Your task to perform on an android device: allow cookies in the chrome app Image 0: 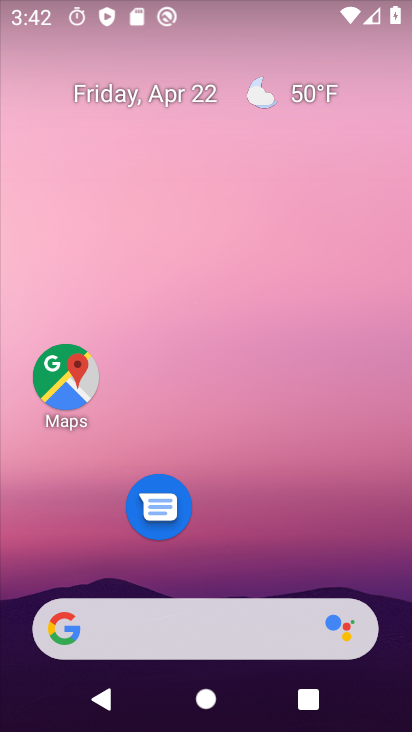
Step 0: drag from (272, 538) to (260, 127)
Your task to perform on an android device: allow cookies in the chrome app Image 1: 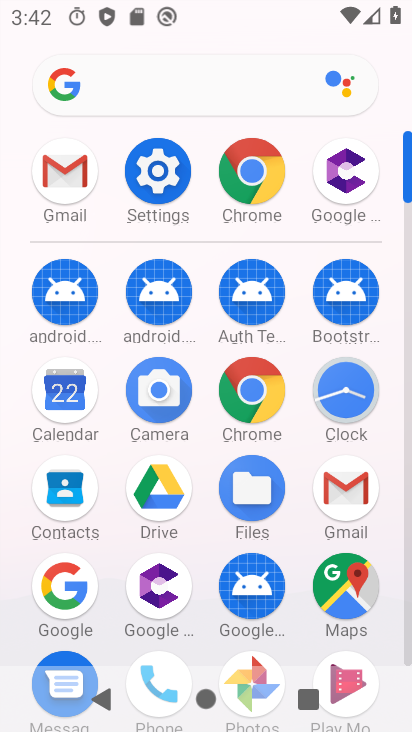
Step 1: click (252, 162)
Your task to perform on an android device: allow cookies in the chrome app Image 2: 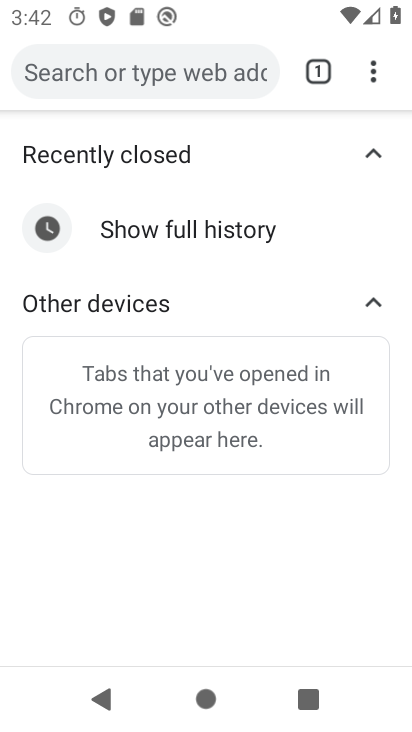
Step 2: drag from (380, 65) to (177, 398)
Your task to perform on an android device: allow cookies in the chrome app Image 3: 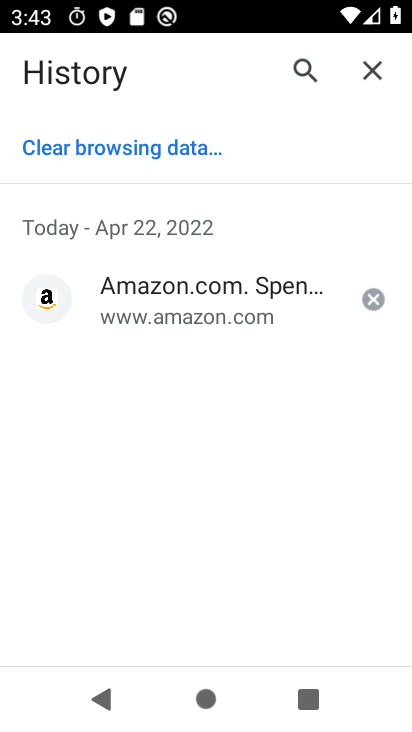
Step 3: click (367, 66)
Your task to perform on an android device: allow cookies in the chrome app Image 4: 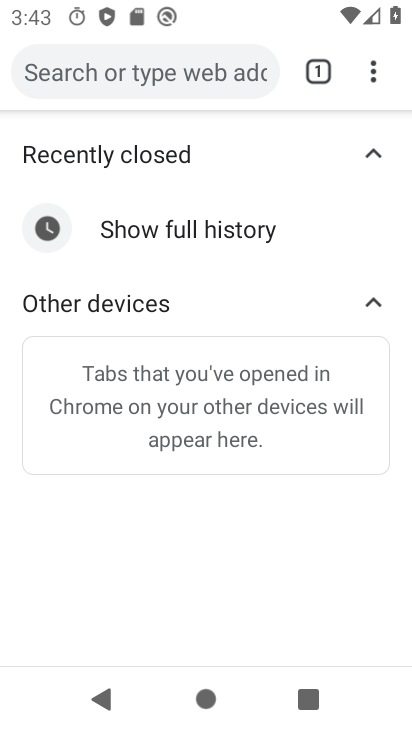
Step 4: drag from (374, 68) to (163, 493)
Your task to perform on an android device: allow cookies in the chrome app Image 5: 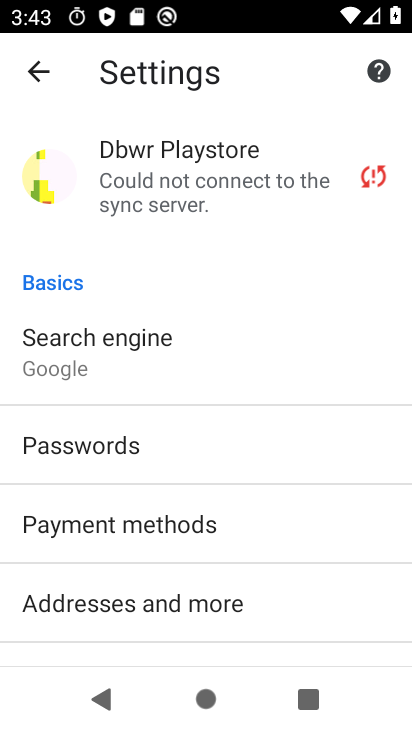
Step 5: drag from (179, 519) to (267, 19)
Your task to perform on an android device: allow cookies in the chrome app Image 6: 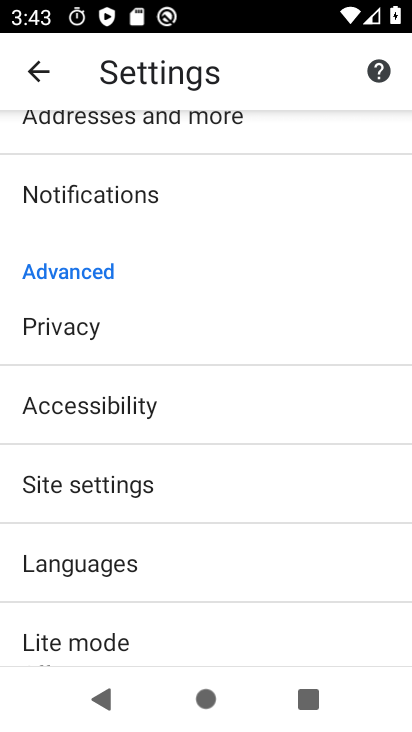
Step 6: click (63, 490)
Your task to perform on an android device: allow cookies in the chrome app Image 7: 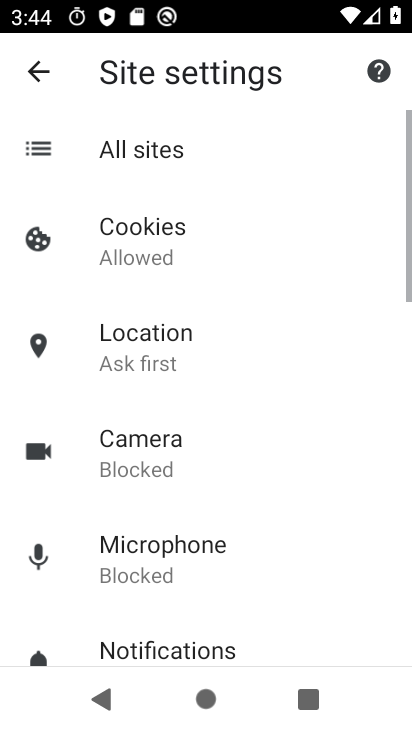
Step 7: click (172, 245)
Your task to perform on an android device: allow cookies in the chrome app Image 8: 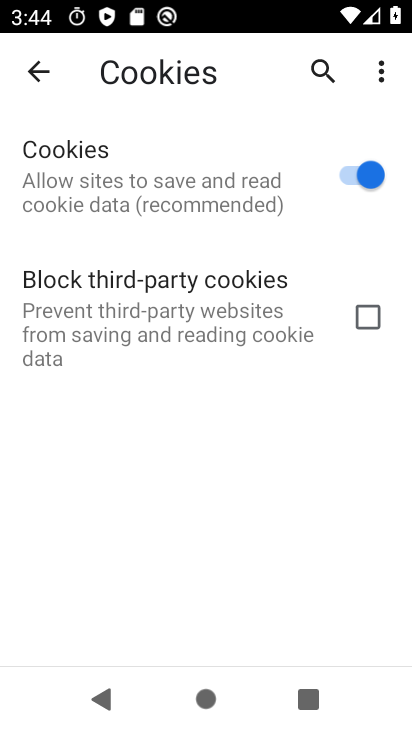
Step 8: task complete